Your task to perform on an android device: change notifications settings Image 0: 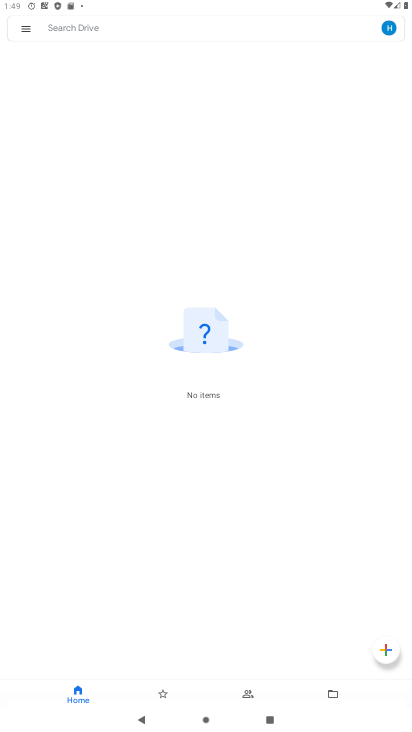
Step 0: press home button
Your task to perform on an android device: change notifications settings Image 1: 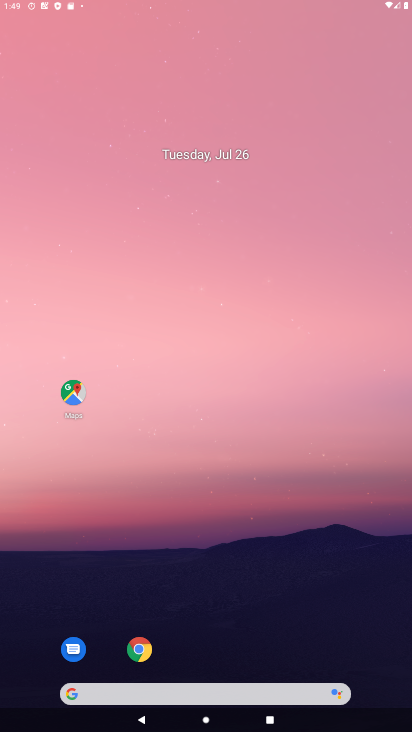
Step 1: drag from (374, 635) to (251, 86)
Your task to perform on an android device: change notifications settings Image 2: 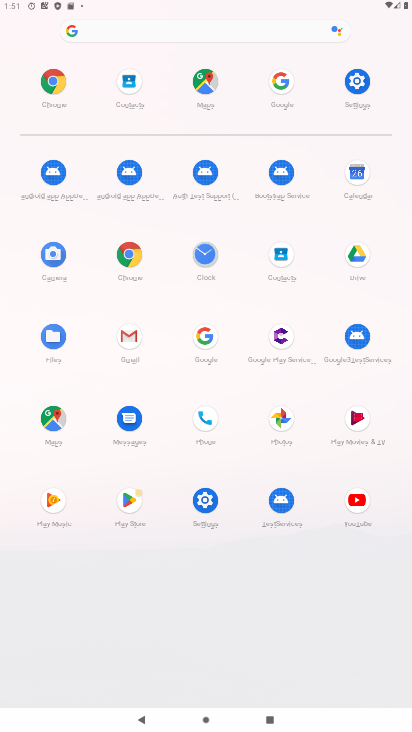
Step 2: click (204, 522)
Your task to perform on an android device: change notifications settings Image 3: 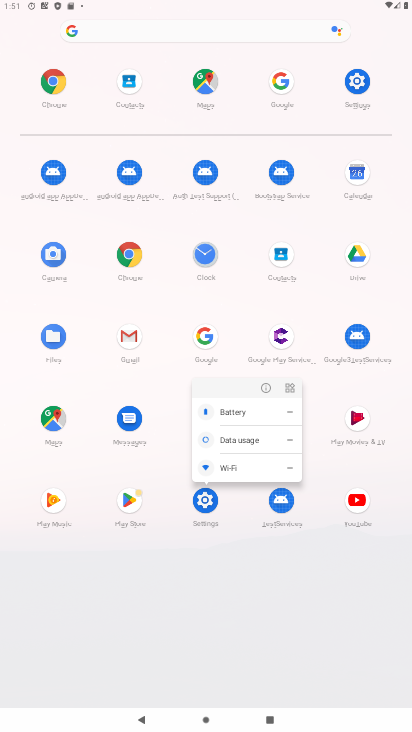
Step 3: click (204, 522)
Your task to perform on an android device: change notifications settings Image 4: 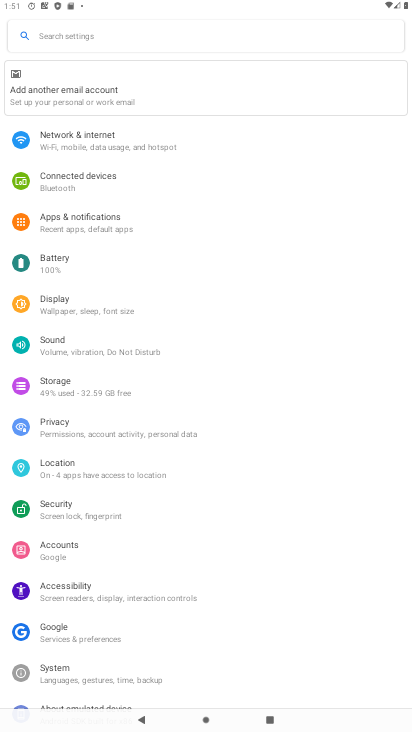
Step 4: task complete